Your task to perform on an android device: turn on the 24-hour format for clock Image 0: 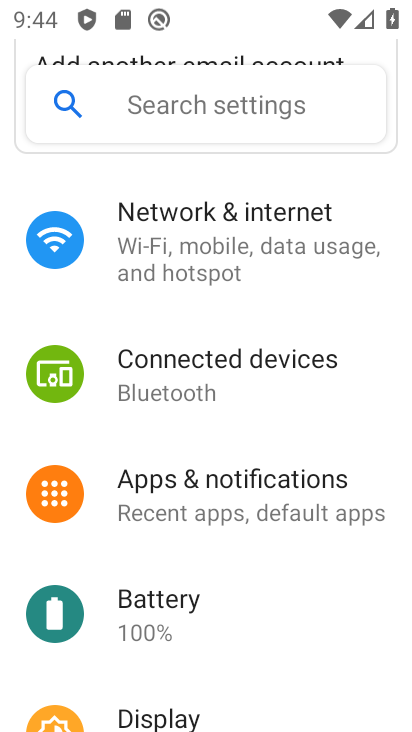
Step 0: press home button
Your task to perform on an android device: turn on the 24-hour format for clock Image 1: 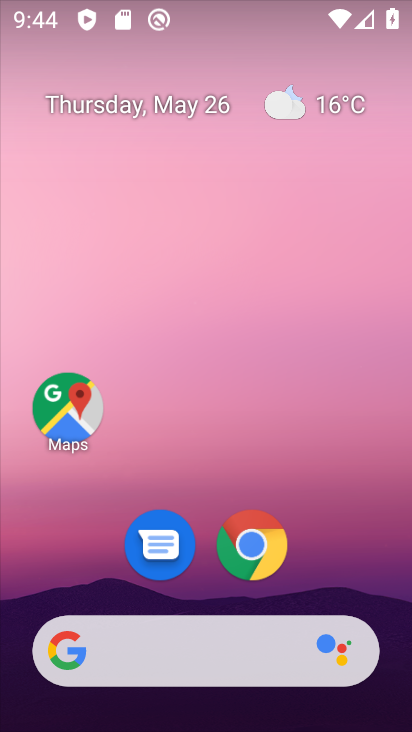
Step 1: drag from (355, 535) to (341, 63)
Your task to perform on an android device: turn on the 24-hour format for clock Image 2: 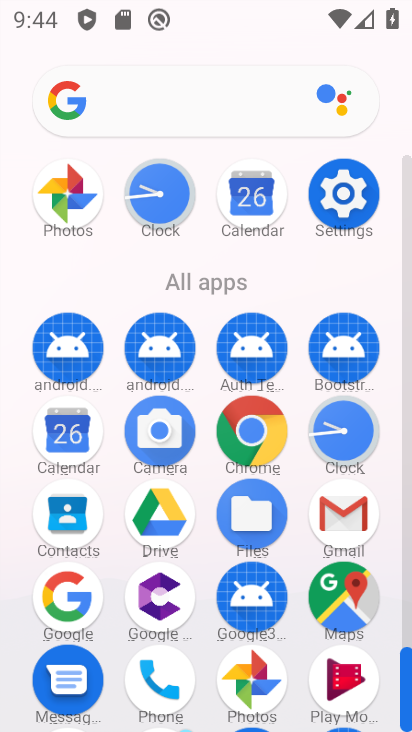
Step 2: click (348, 426)
Your task to perform on an android device: turn on the 24-hour format for clock Image 3: 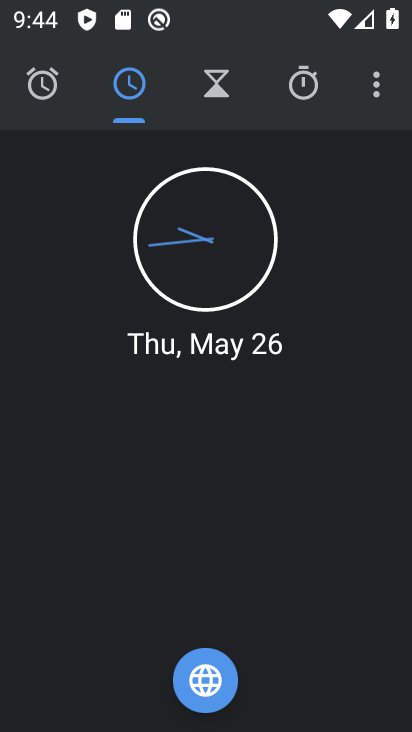
Step 3: click (364, 91)
Your task to perform on an android device: turn on the 24-hour format for clock Image 4: 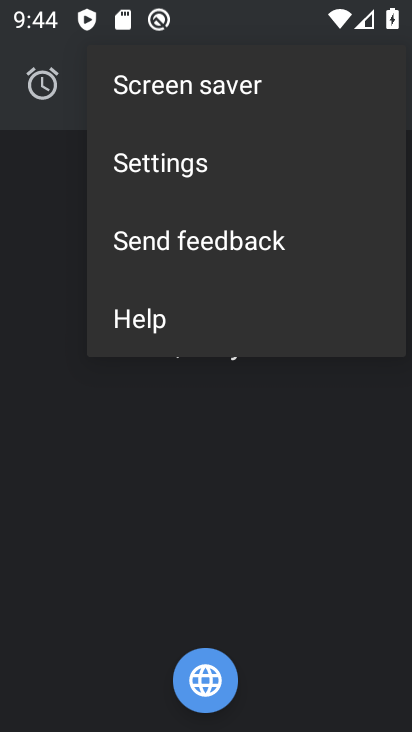
Step 4: click (181, 158)
Your task to perform on an android device: turn on the 24-hour format for clock Image 5: 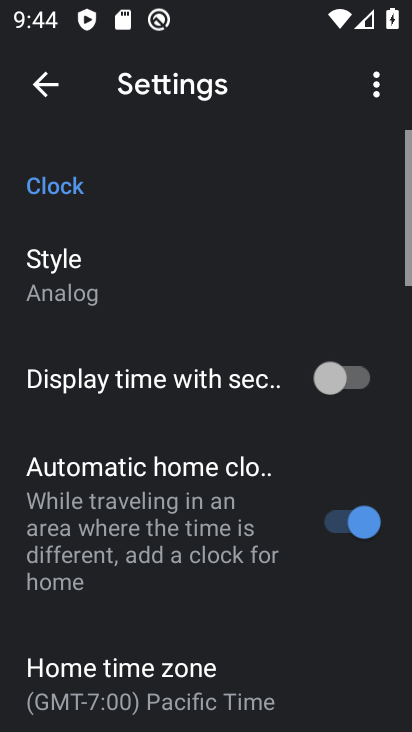
Step 5: drag from (200, 613) to (200, 136)
Your task to perform on an android device: turn on the 24-hour format for clock Image 6: 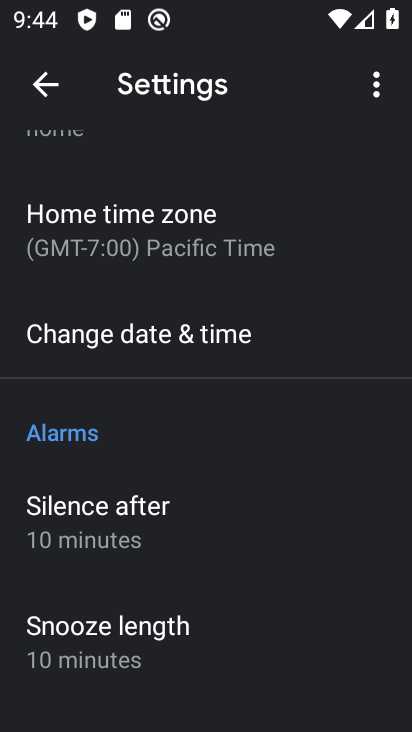
Step 6: click (101, 328)
Your task to perform on an android device: turn on the 24-hour format for clock Image 7: 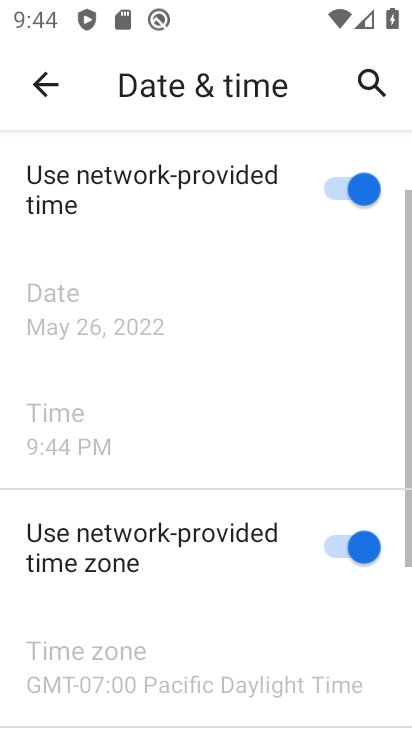
Step 7: drag from (256, 575) to (232, 74)
Your task to perform on an android device: turn on the 24-hour format for clock Image 8: 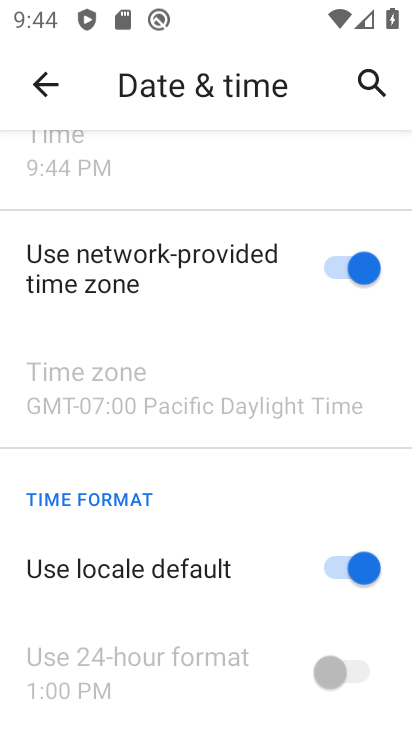
Step 8: click (362, 576)
Your task to perform on an android device: turn on the 24-hour format for clock Image 9: 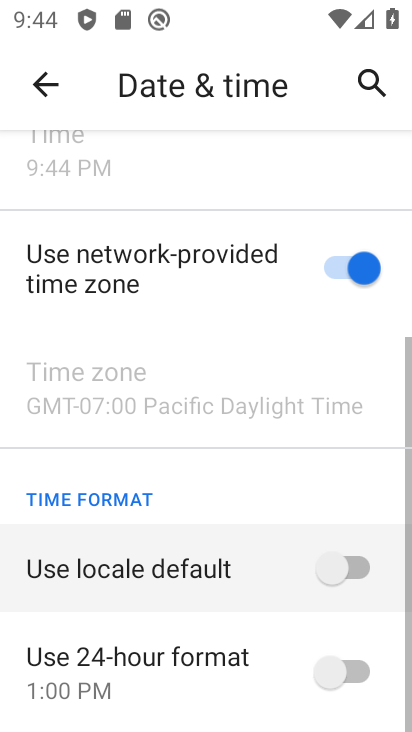
Step 9: click (352, 674)
Your task to perform on an android device: turn on the 24-hour format for clock Image 10: 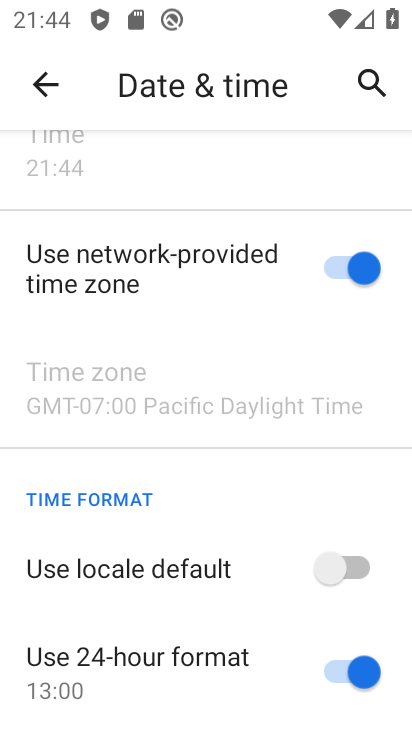
Step 10: task complete